Your task to perform on an android device: toggle notifications settings in the gmail app Image 0: 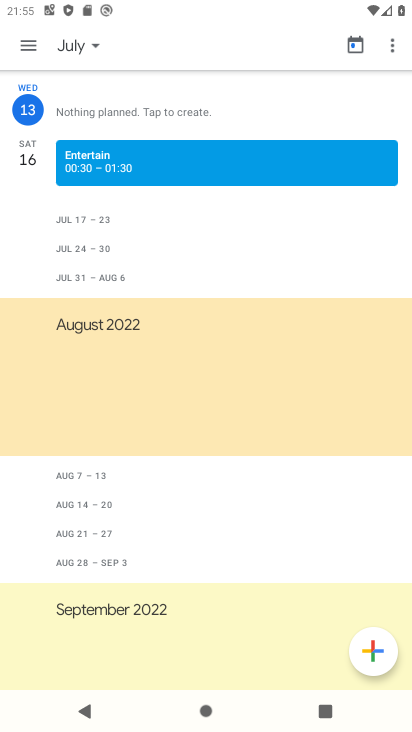
Step 0: press back button
Your task to perform on an android device: toggle notifications settings in the gmail app Image 1: 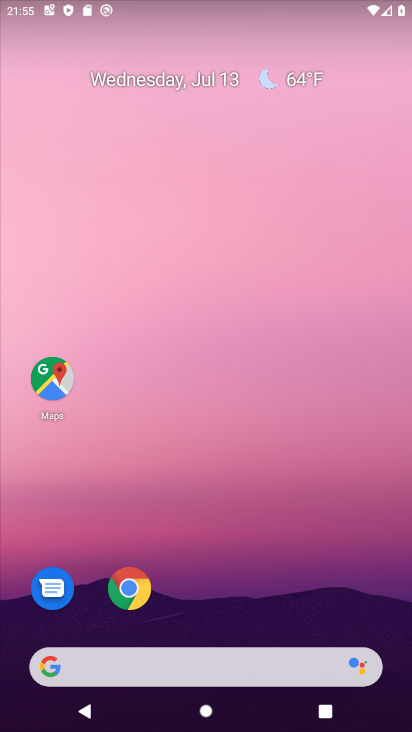
Step 1: drag from (261, 612) to (280, 69)
Your task to perform on an android device: toggle notifications settings in the gmail app Image 2: 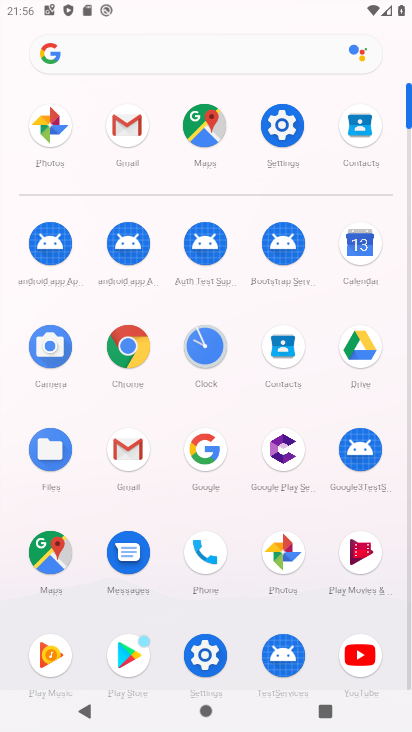
Step 2: click (121, 119)
Your task to perform on an android device: toggle notifications settings in the gmail app Image 3: 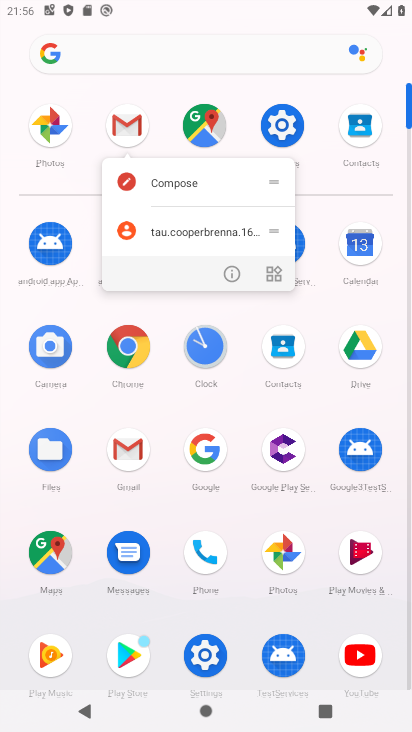
Step 3: click (228, 282)
Your task to perform on an android device: toggle notifications settings in the gmail app Image 4: 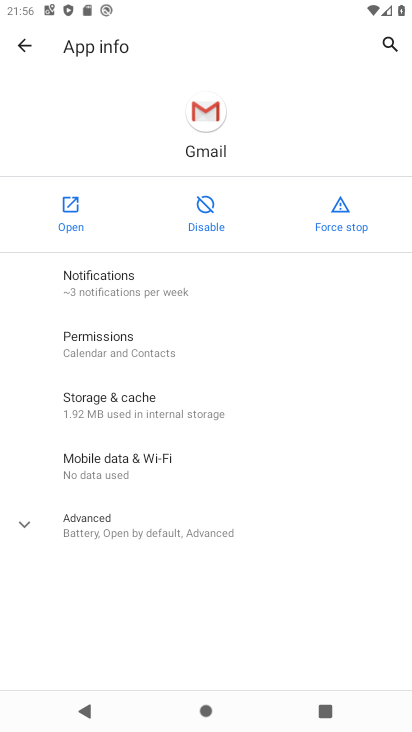
Step 4: click (155, 280)
Your task to perform on an android device: toggle notifications settings in the gmail app Image 5: 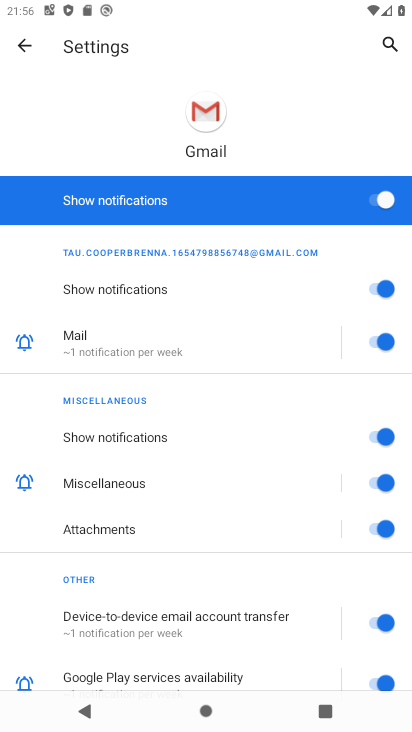
Step 5: click (392, 198)
Your task to perform on an android device: toggle notifications settings in the gmail app Image 6: 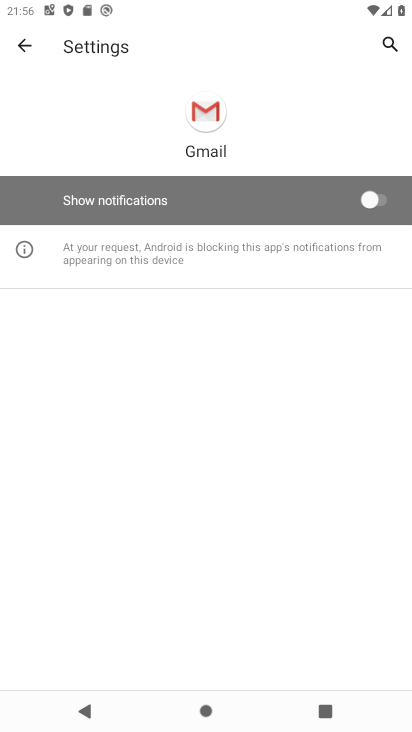
Step 6: task complete